Your task to perform on an android device: Open my contact list Image 0: 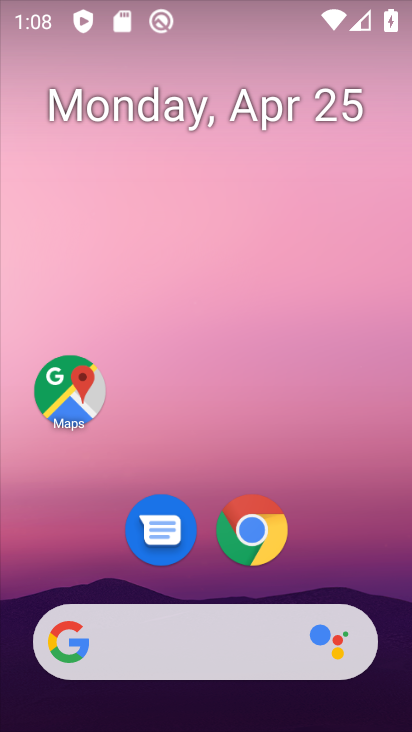
Step 0: drag from (359, 320) to (369, 138)
Your task to perform on an android device: Open my contact list Image 1: 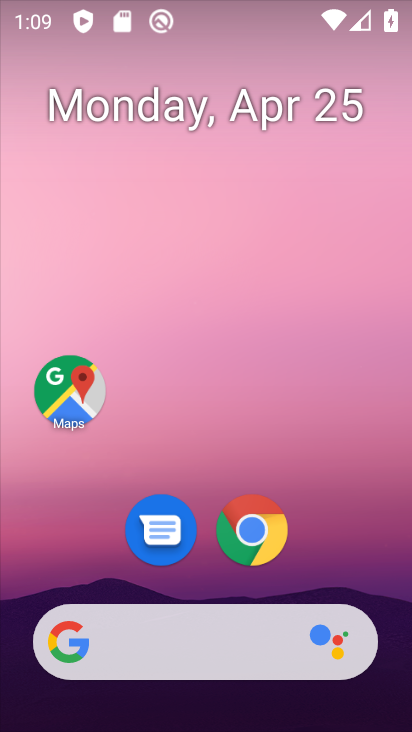
Step 1: drag from (382, 581) to (334, 105)
Your task to perform on an android device: Open my contact list Image 2: 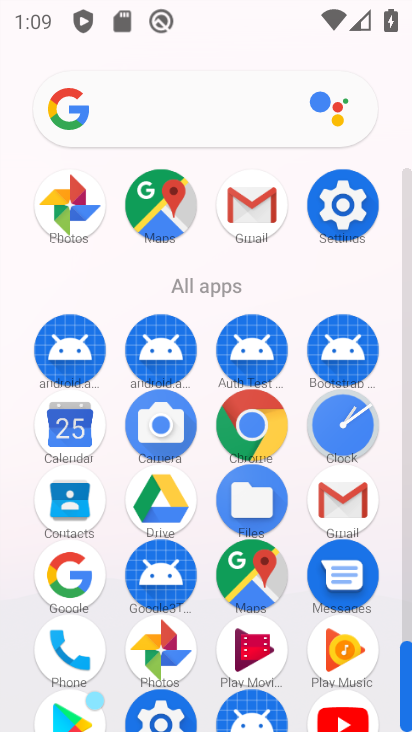
Step 2: click (64, 503)
Your task to perform on an android device: Open my contact list Image 3: 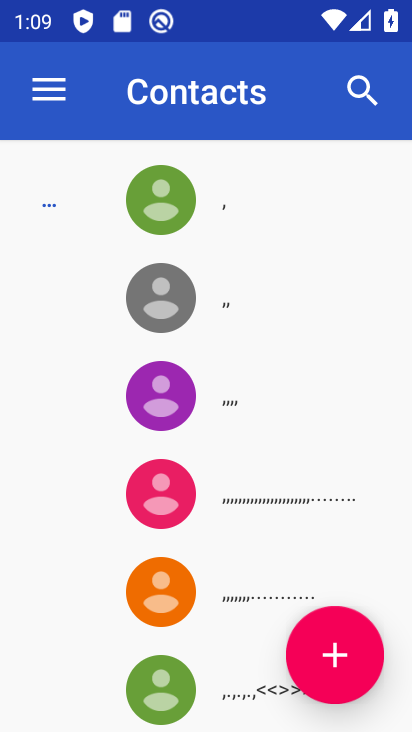
Step 3: task complete